Your task to perform on an android device: toggle sleep mode Image 0: 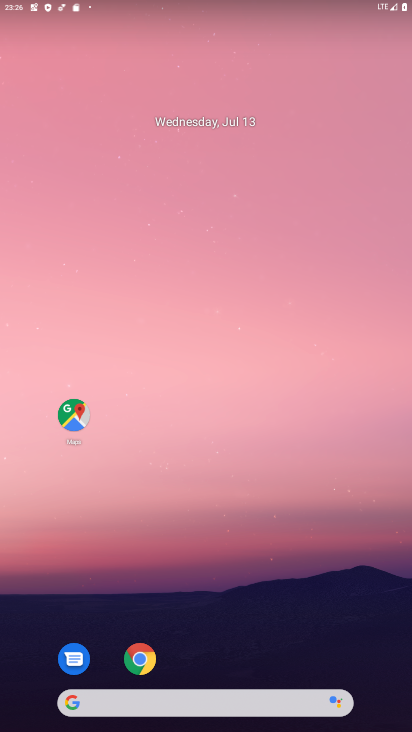
Step 0: drag from (366, 668) to (304, 187)
Your task to perform on an android device: toggle sleep mode Image 1: 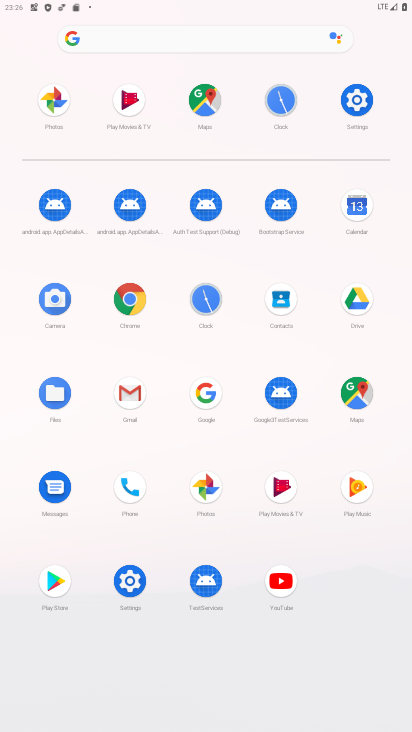
Step 1: click (130, 581)
Your task to perform on an android device: toggle sleep mode Image 2: 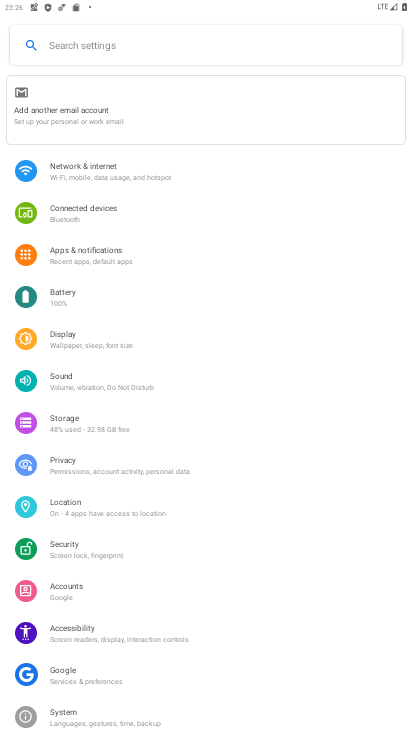
Step 2: click (62, 331)
Your task to perform on an android device: toggle sleep mode Image 3: 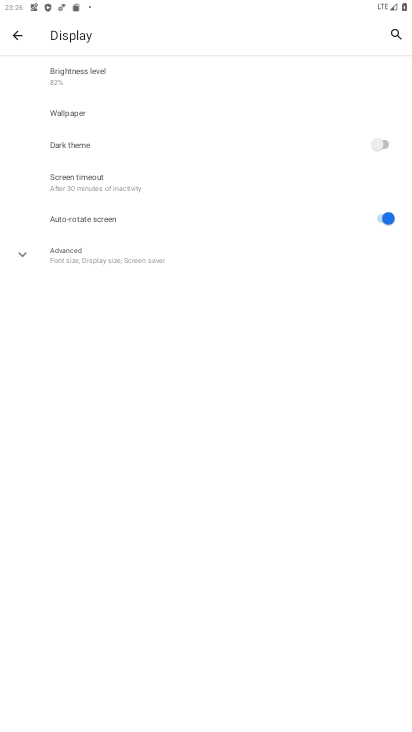
Step 3: click (18, 260)
Your task to perform on an android device: toggle sleep mode Image 4: 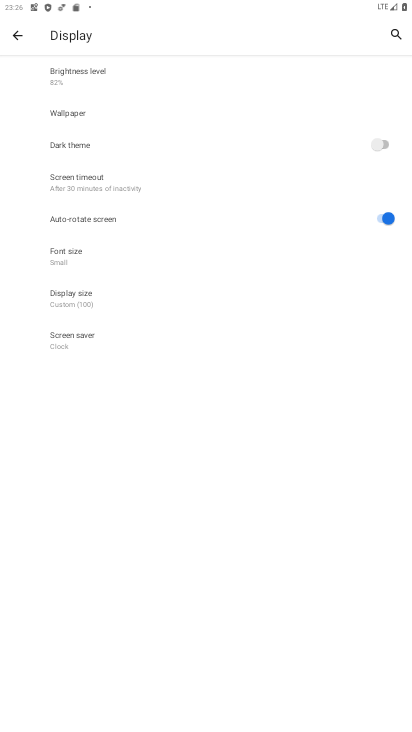
Step 4: task complete